Your task to perform on an android device: check google app version Image 0: 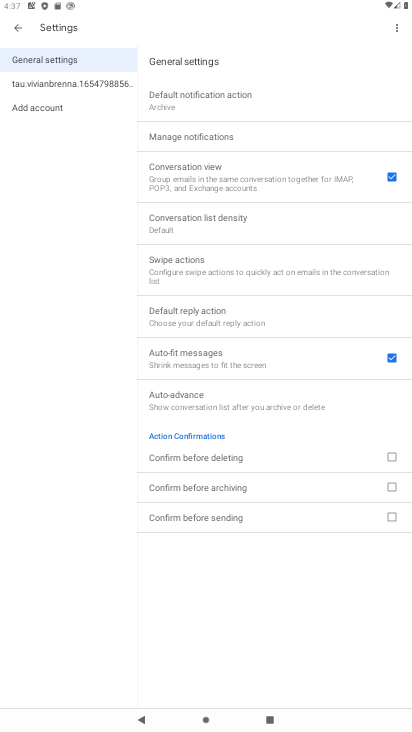
Step 0: press home button
Your task to perform on an android device: check google app version Image 1: 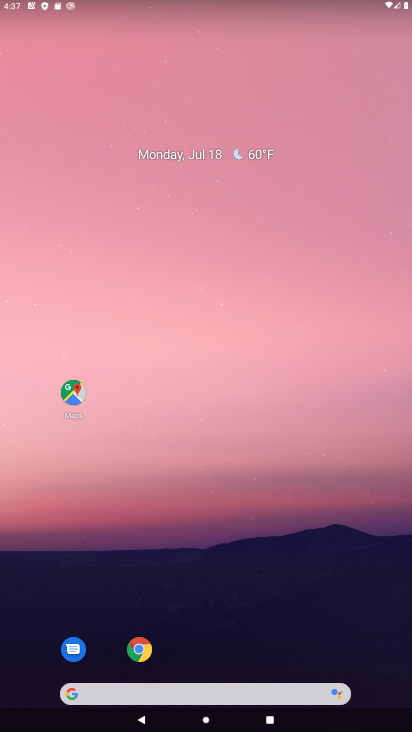
Step 1: click (77, 684)
Your task to perform on an android device: check google app version Image 2: 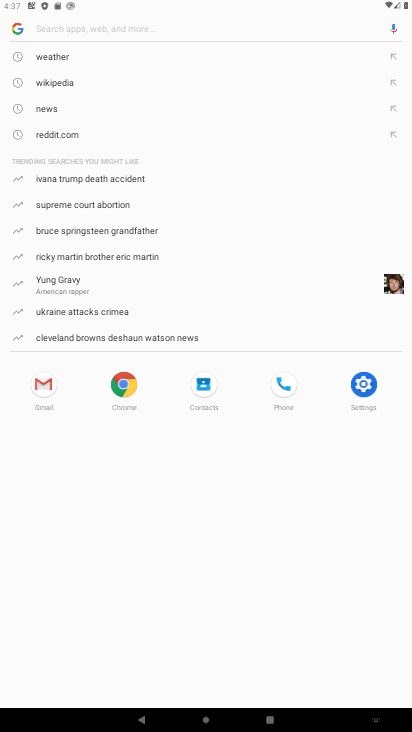
Step 2: click (16, 27)
Your task to perform on an android device: check google app version Image 3: 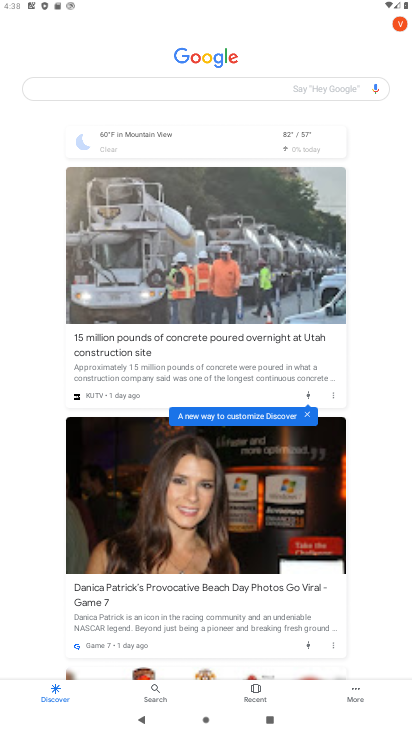
Step 3: click (360, 695)
Your task to perform on an android device: check google app version Image 4: 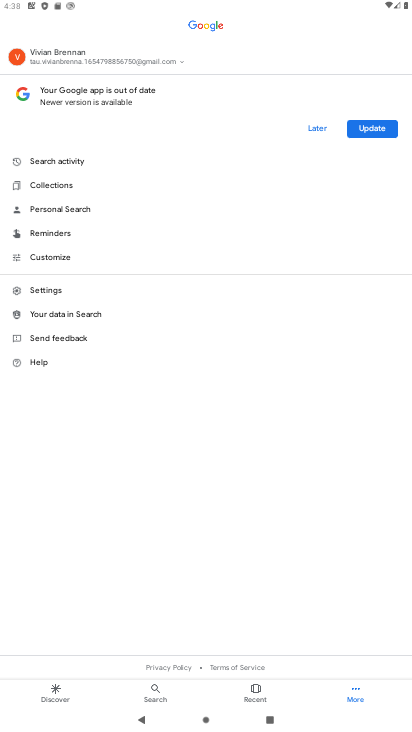
Step 4: click (50, 295)
Your task to perform on an android device: check google app version Image 5: 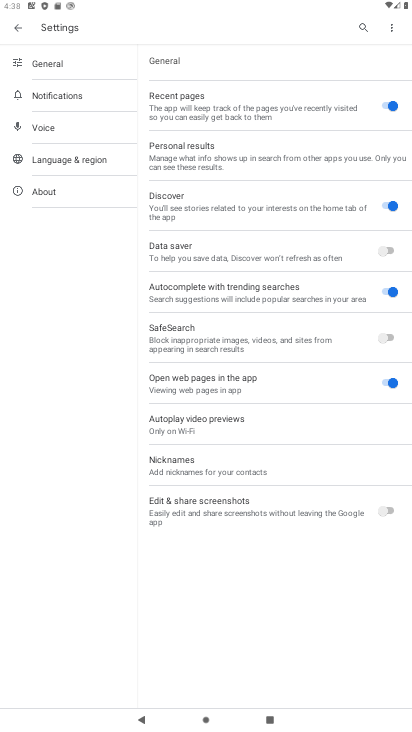
Step 5: click (46, 191)
Your task to perform on an android device: check google app version Image 6: 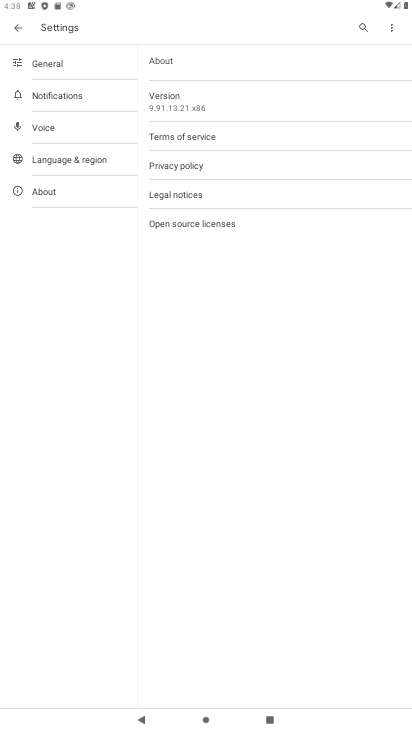
Step 6: task complete